Your task to perform on an android device: Search for "logitech g933" on ebay.com, select the first entry, and add it to the cart. Image 0: 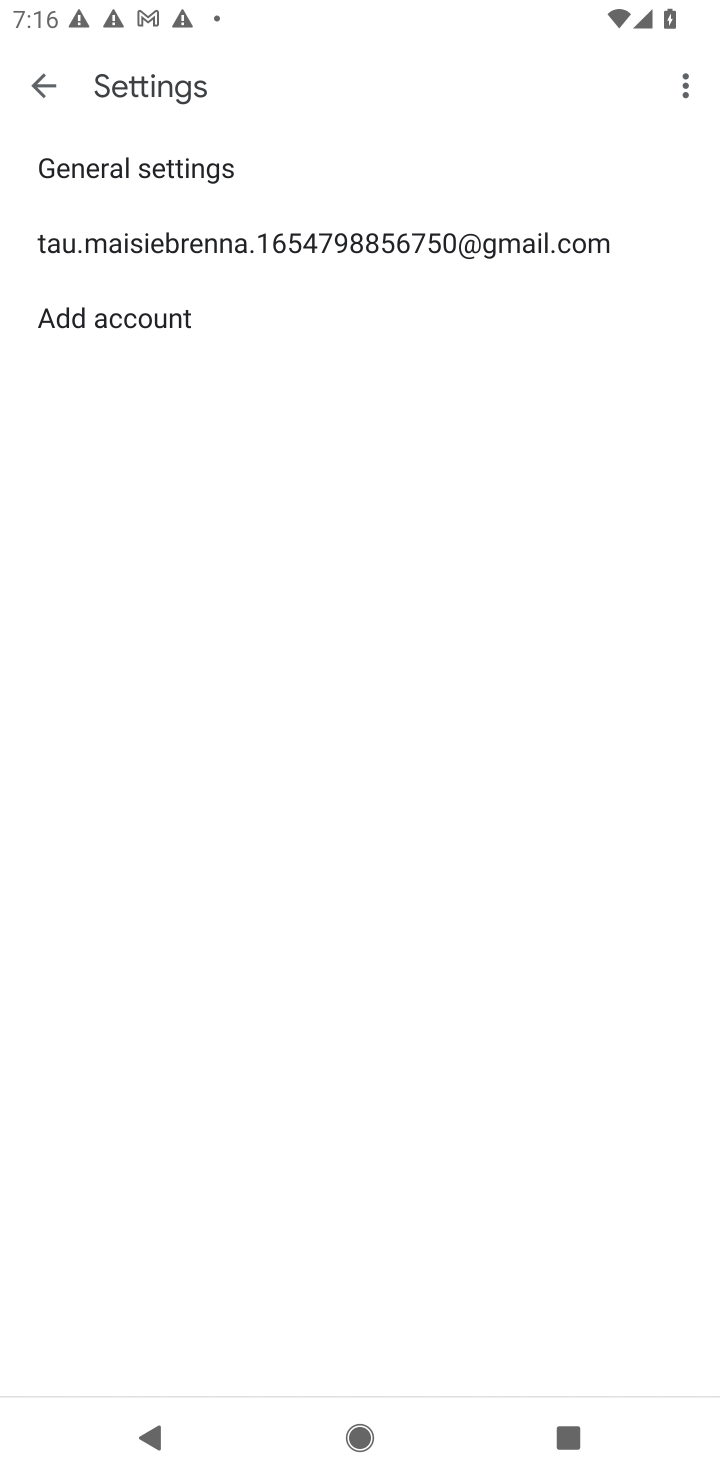
Step 0: press home button
Your task to perform on an android device: Search for "logitech g933" on ebay.com, select the first entry, and add it to the cart. Image 1: 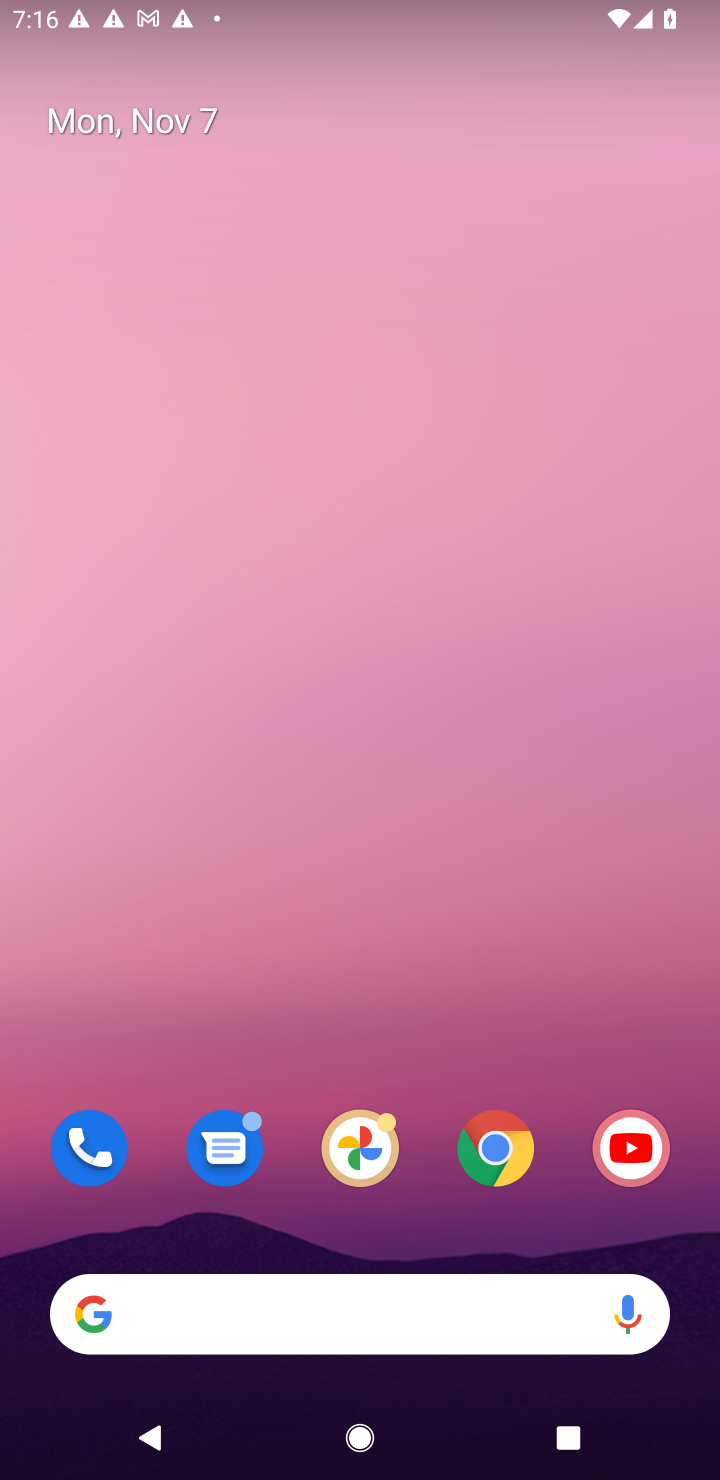
Step 1: click (478, 1140)
Your task to perform on an android device: Search for "logitech g933" on ebay.com, select the first entry, and add it to the cart. Image 2: 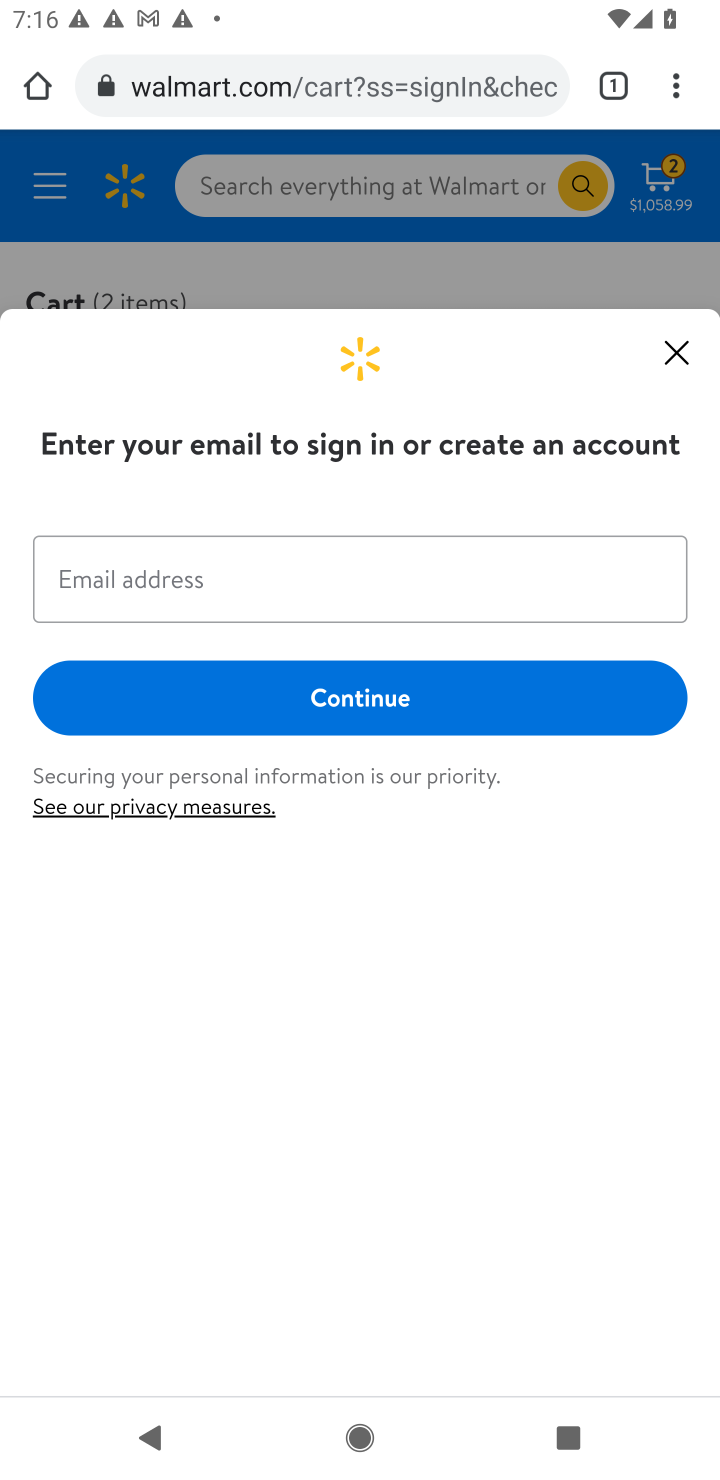
Step 2: click (356, 83)
Your task to perform on an android device: Search for "logitech g933" on ebay.com, select the first entry, and add it to the cart. Image 3: 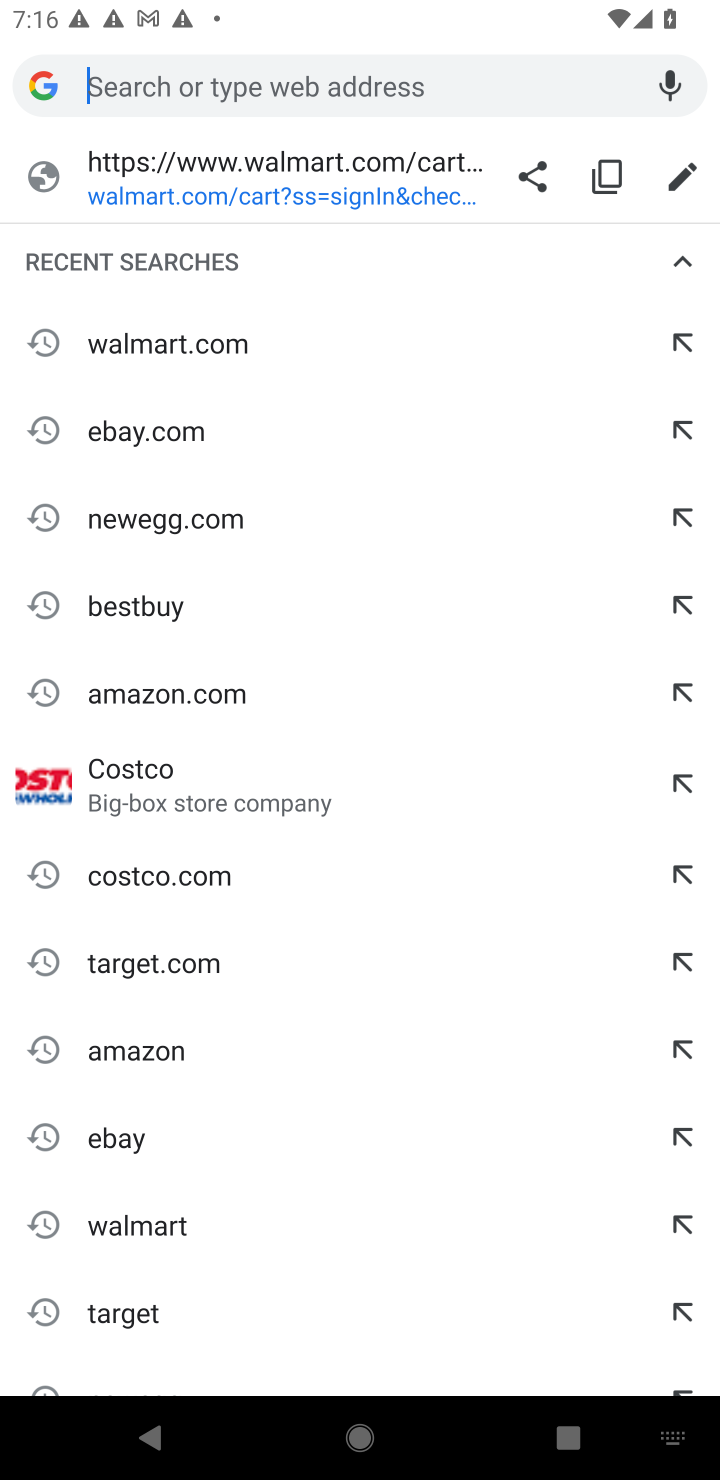
Step 3: type "ebay.com"
Your task to perform on an android device: Search for "logitech g933" on ebay.com, select the first entry, and add it to the cart. Image 4: 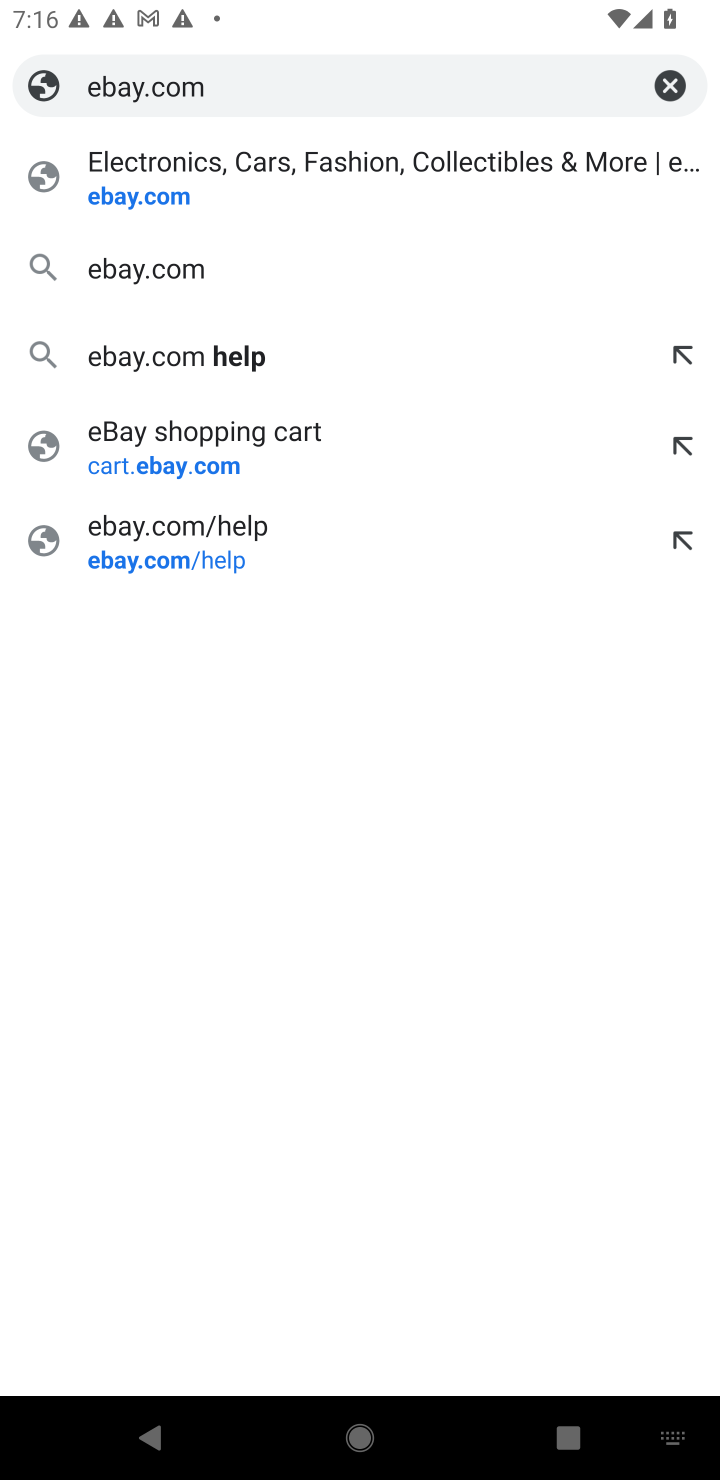
Step 4: click (165, 266)
Your task to perform on an android device: Search for "logitech g933" on ebay.com, select the first entry, and add it to the cart. Image 5: 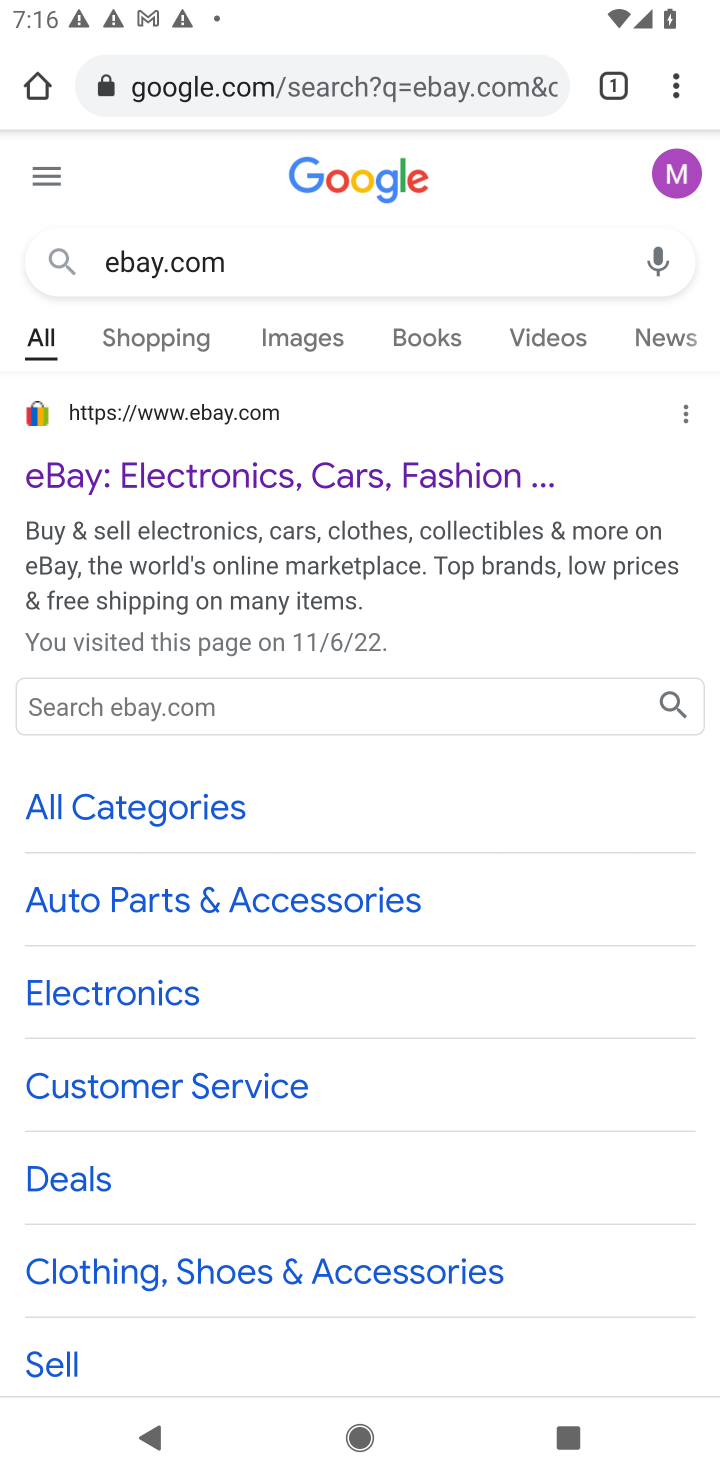
Step 5: click (245, 413)
Your task to perform on an android device: Search for "logitech g933" on ebay.com, select the first entry, and add it to the cart. Image 6: 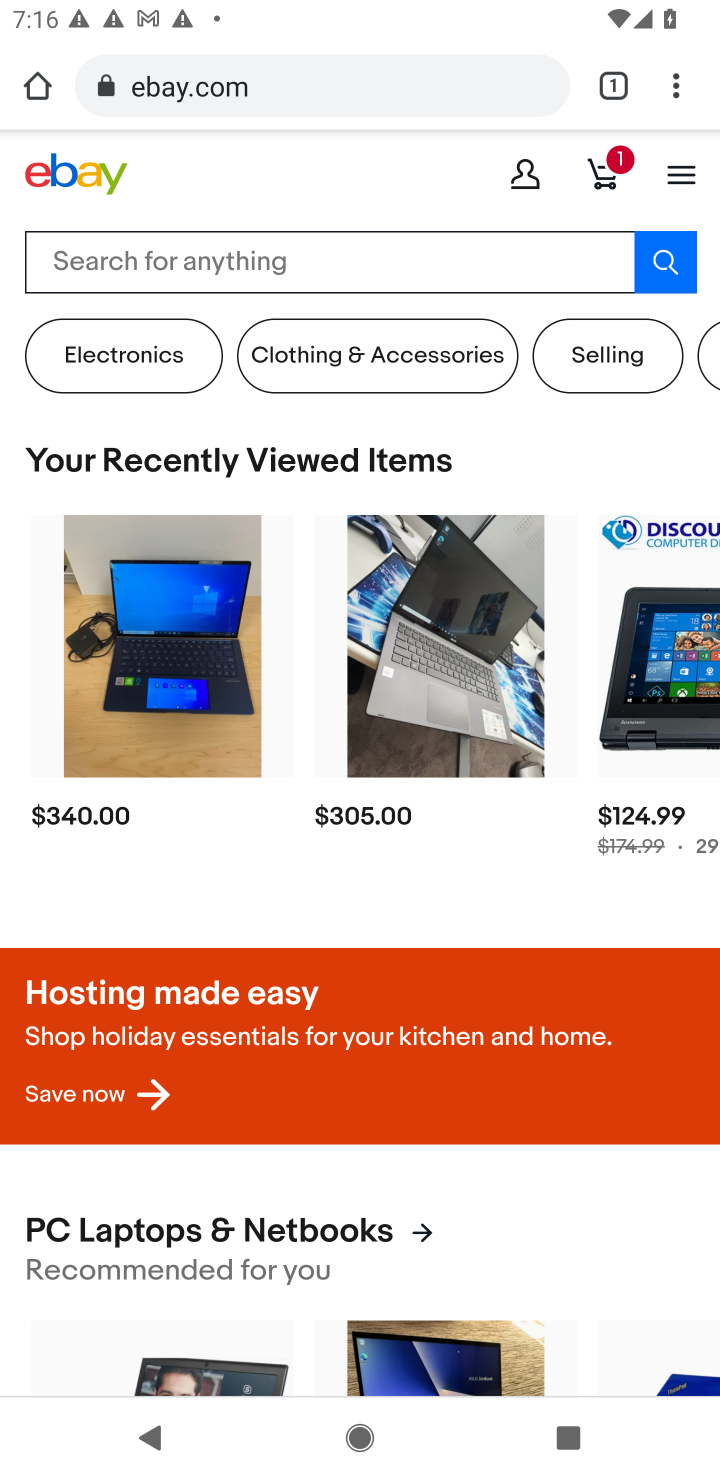
Step 6: click (438, 258)
Your task to perform on an android device: Search for "logitech g933" on ebay.com, select the first entry, and add it to the cart. Image 7: 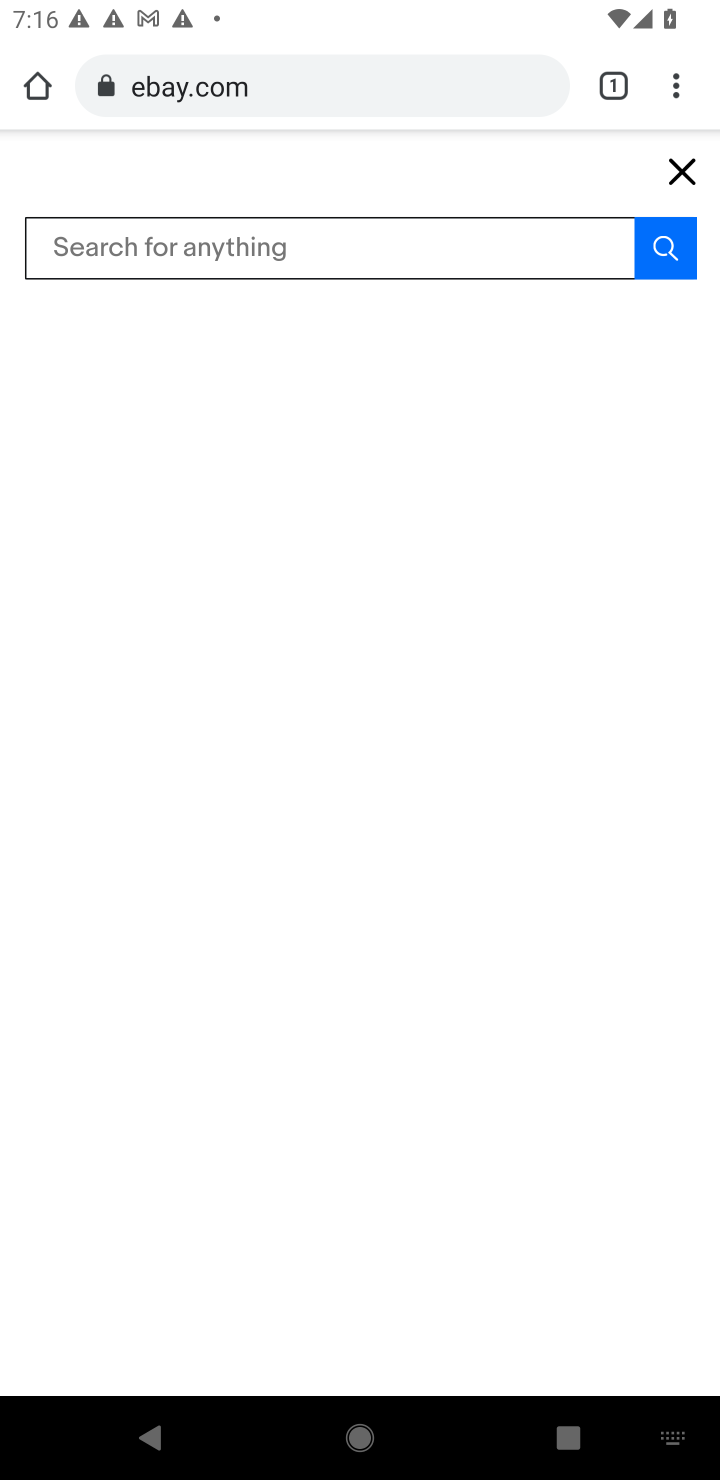
Step 7: type "logitech g933"
Your task to perform on an android device: Search for "logitech g933" on ebay.com, select the first entry, and add it to the cart. Image 8: 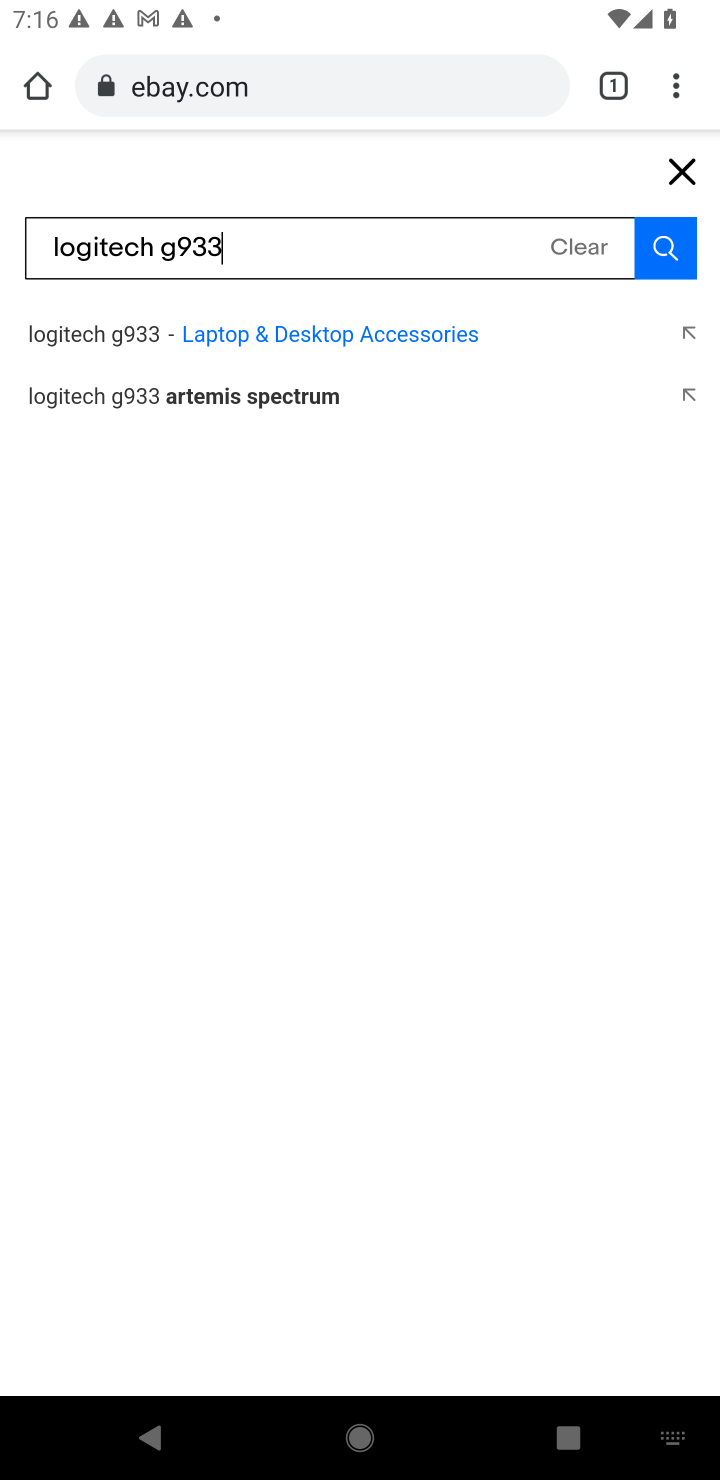
Step 8: click (135, 335)
Your task to perform on an android device: Search for "logitech g933" on ebay.com, select the first entry, and add it to the cart. Image 9: 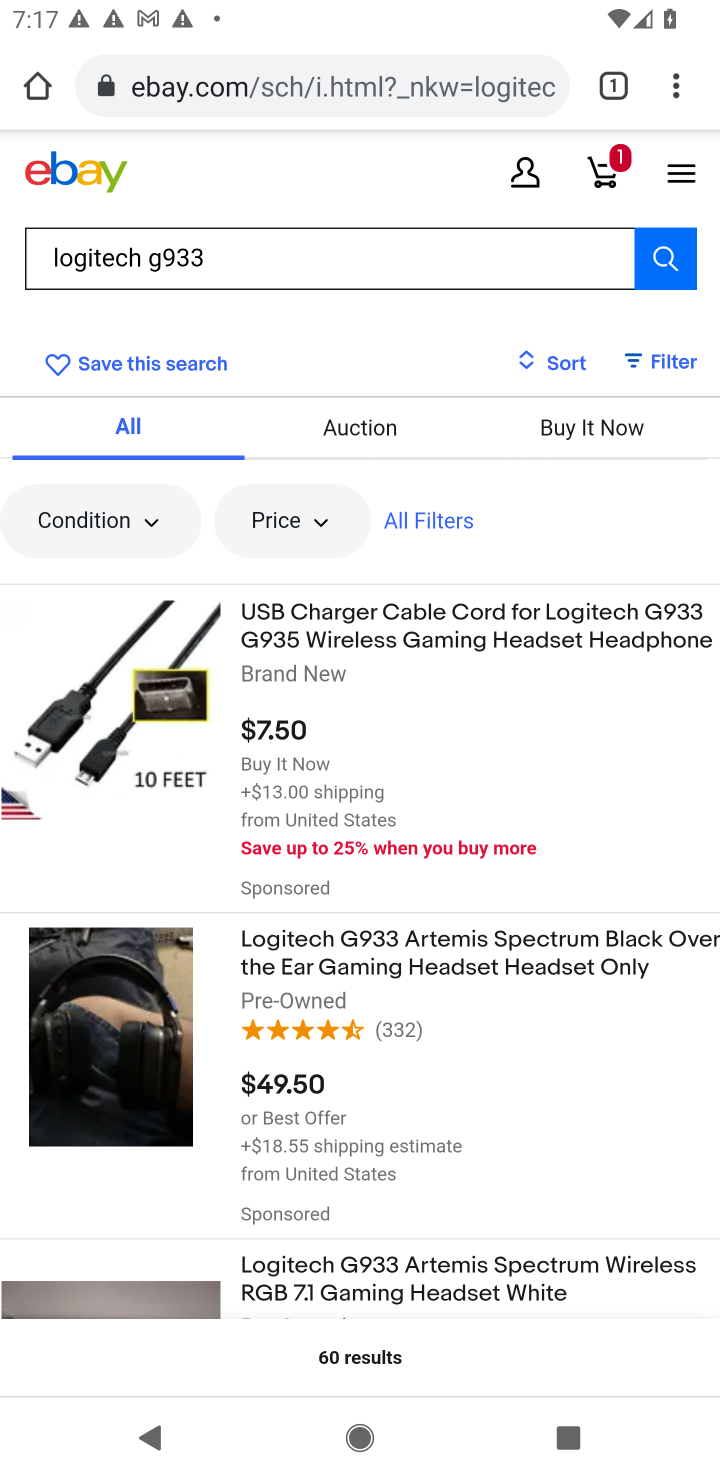
Step 9: click (153, 975)
Your task to perform on an android device: Search for "logitech g933" on ebay.com, select the first entry, and add it to the cart. Image 10: 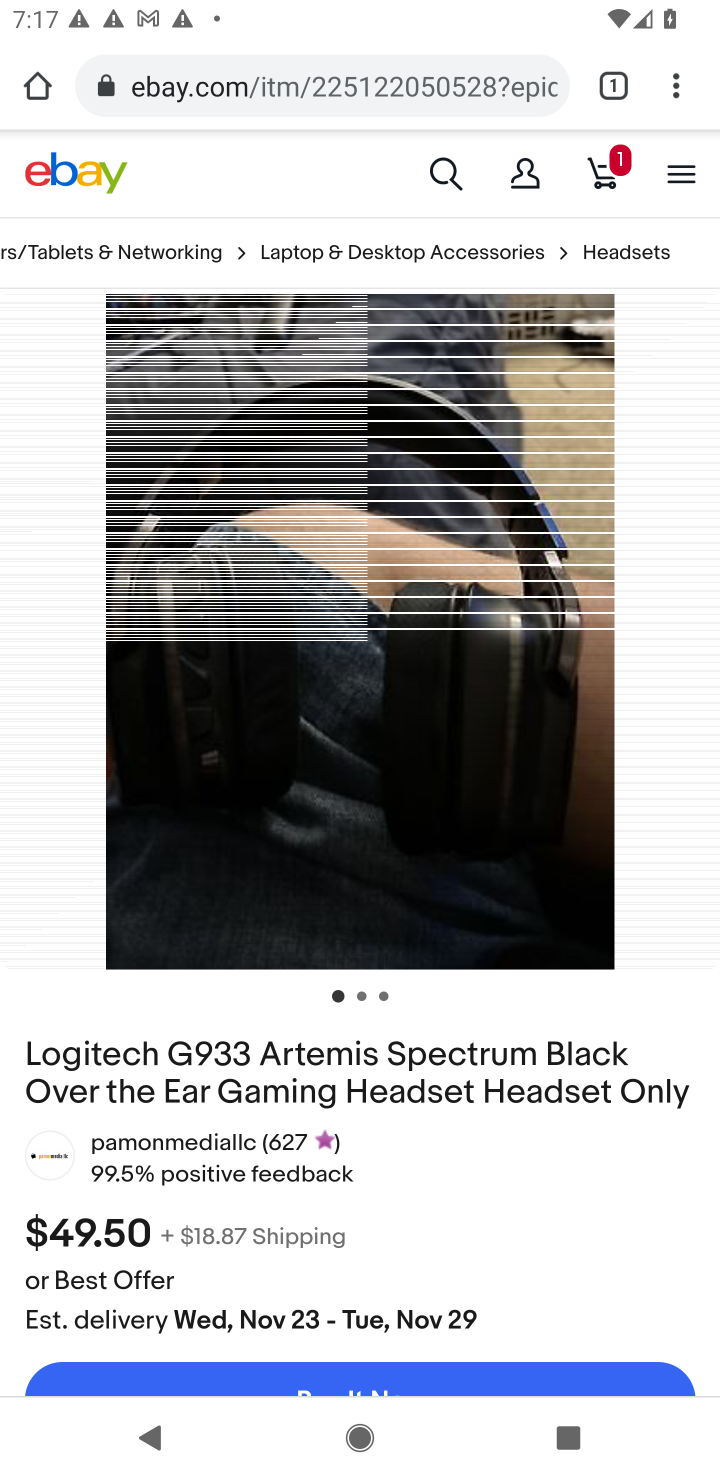
Step 10: press back button
Your task to perform on an android device: Search for "logitech g933" on ebay.com, select the first entry, and add it to the cart. Image 11: 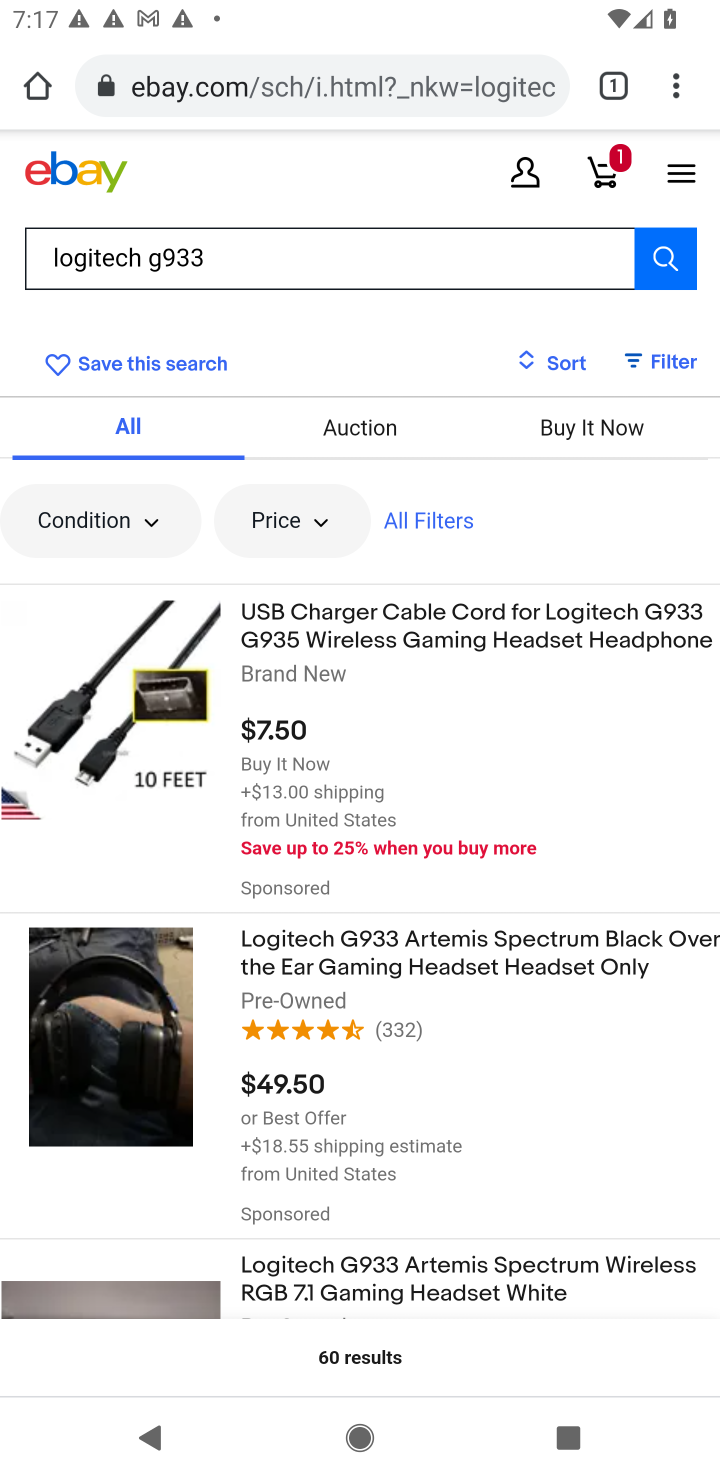
Step 11: drag from (153, 1096) to (213, 559)
Your task to perform on an android device: Search for "logitech g933" on ebay.com, select the first entry, and add it to the cart. Image 12: 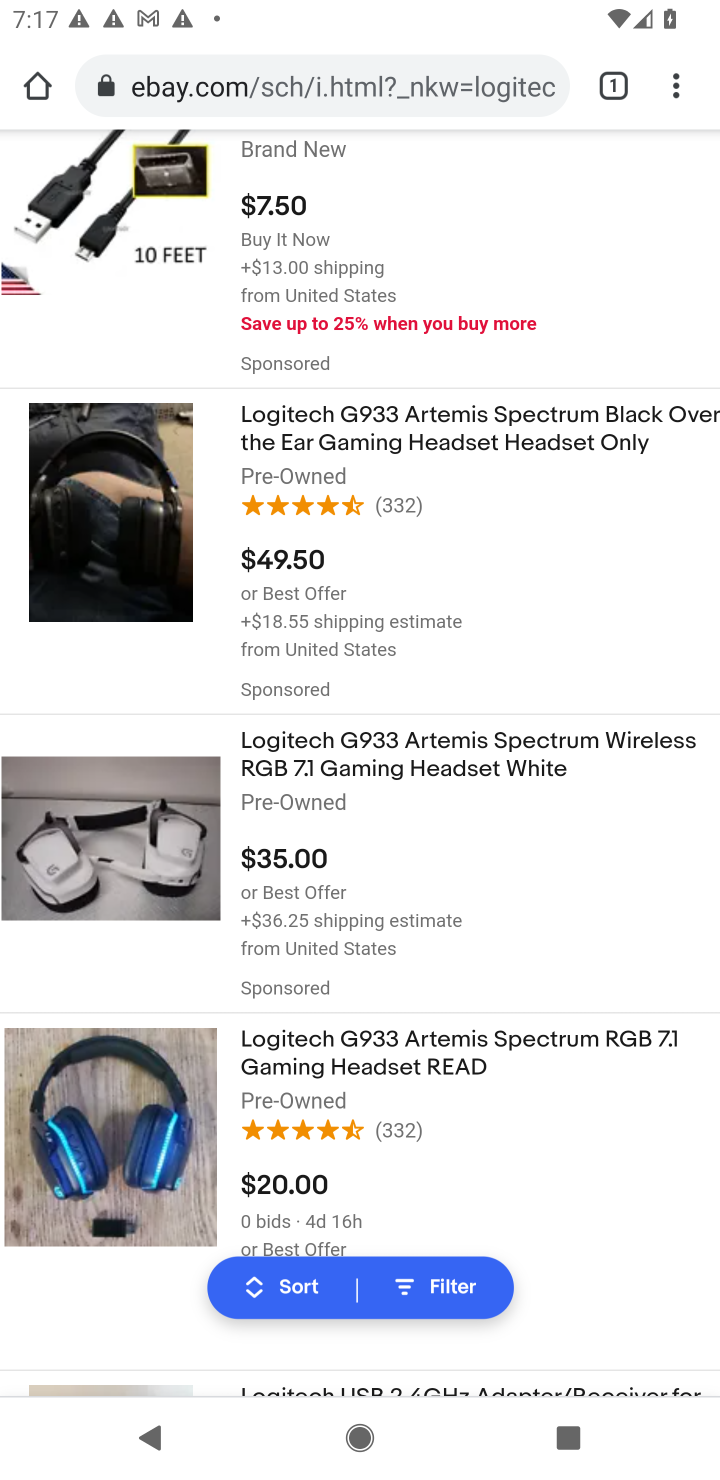
Step 12: click (162, 848)
Your task to perform on an android device: Search for "logitech g933" on ebay.com, select the first entry, and add it to the cart. Image 13: 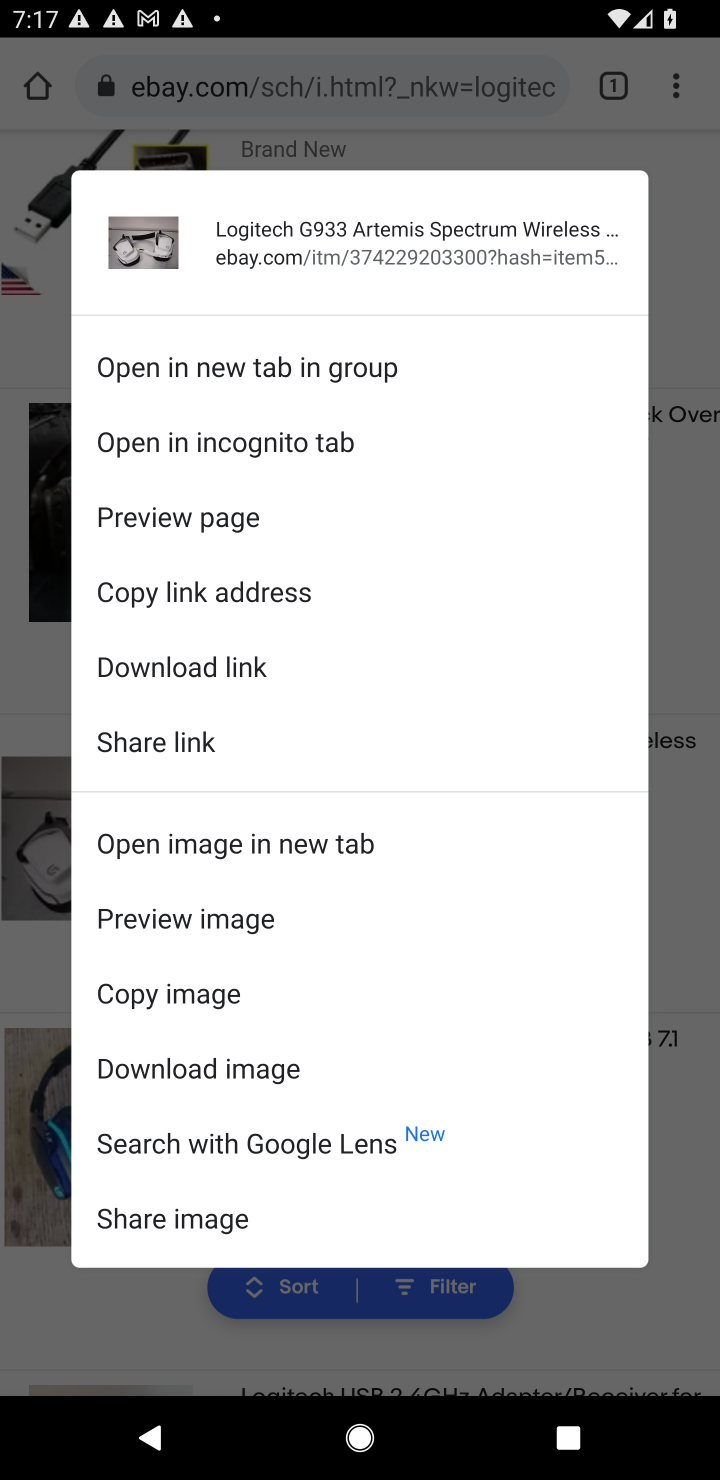
Step 13: click (706, 645)
Your task to perform on an android device: Search for "logitech g933" on ebay.com, select the first entry, and add it to the cart. Image 14: 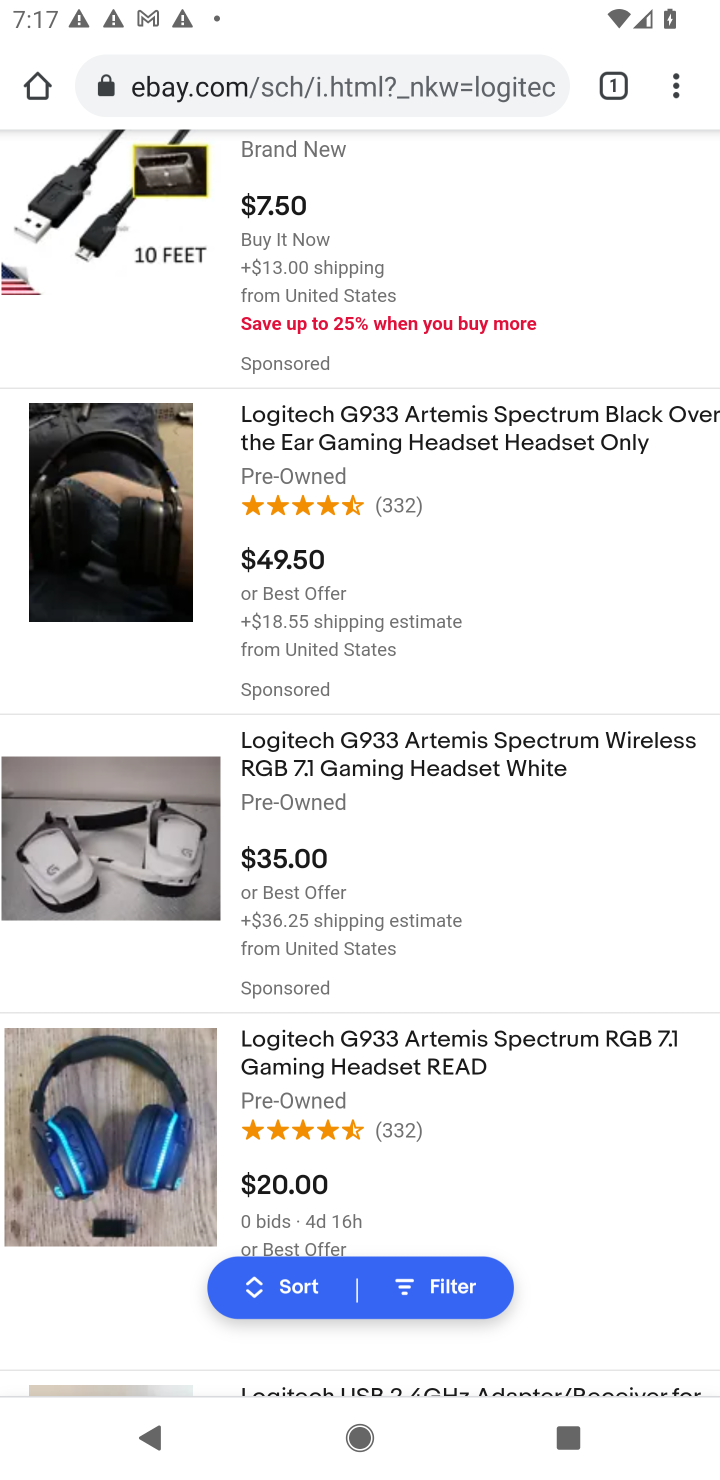
Step 14: click (85, 817)
Your task to perform on an android device: Search for "logitech g933" on ebay.com, select the first entry, and add it to the cart. Image 15: 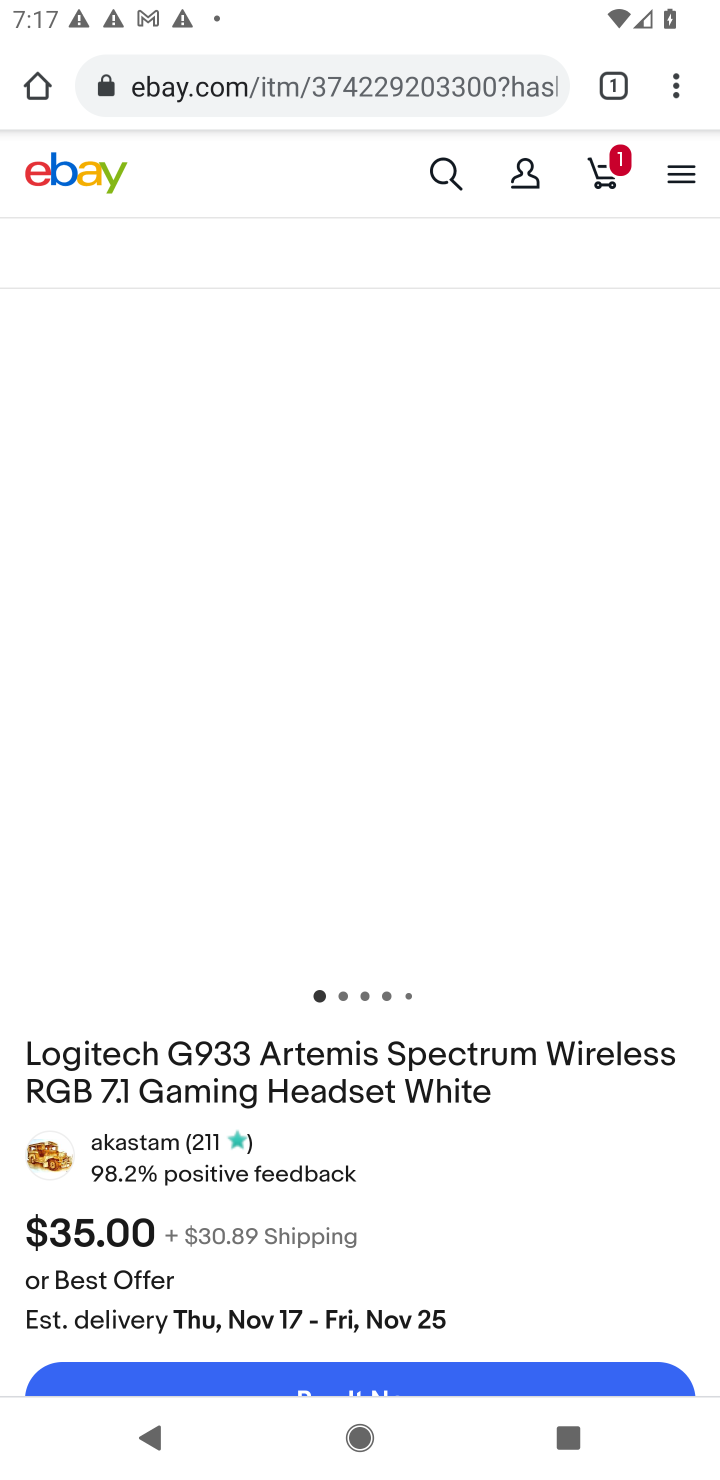
Step 15: press back button
Your task to perform on an android device: Search for "logitech g933" on ebay.com, select the first entry, and add it to the cart. Image 16: 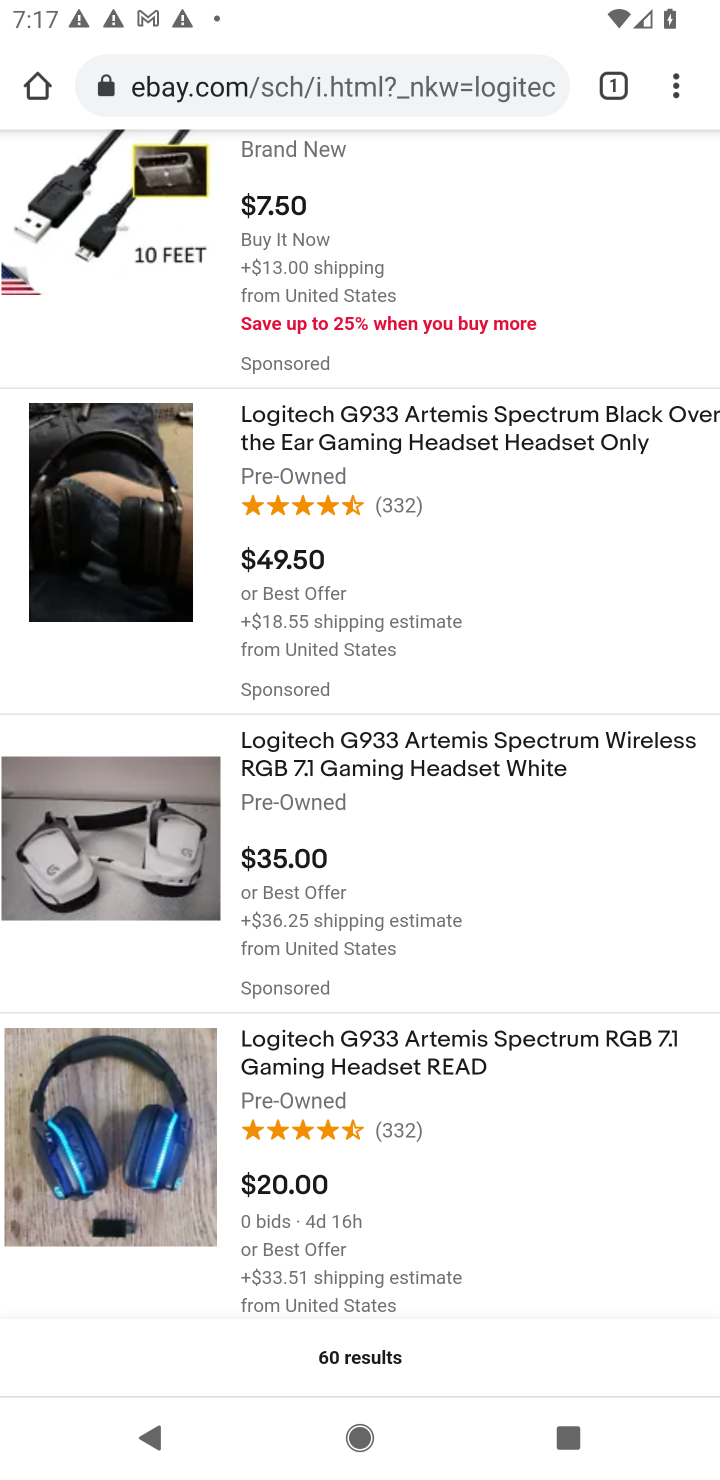
Step 16: click (140, 1070)
Your task to perform on an android device: Search for "logitech g933" on ebay.com, select the first entry, and add it to the cart. Image 17: 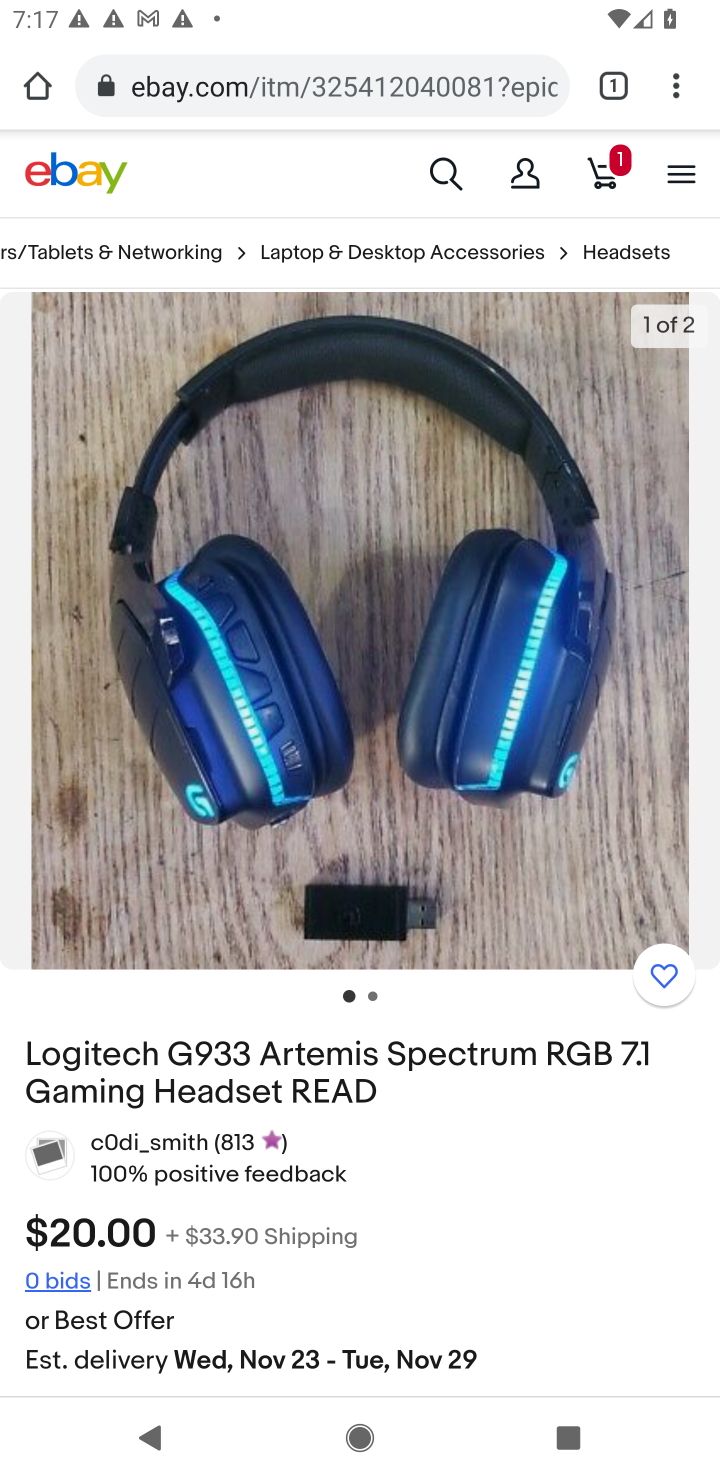
Step 17: drag from (519, 931) to (572, 286)
Your task to perform on an android device: Search for "logitech g933" on ebay.com, select the first entry, and add it to the cart. Image 18: 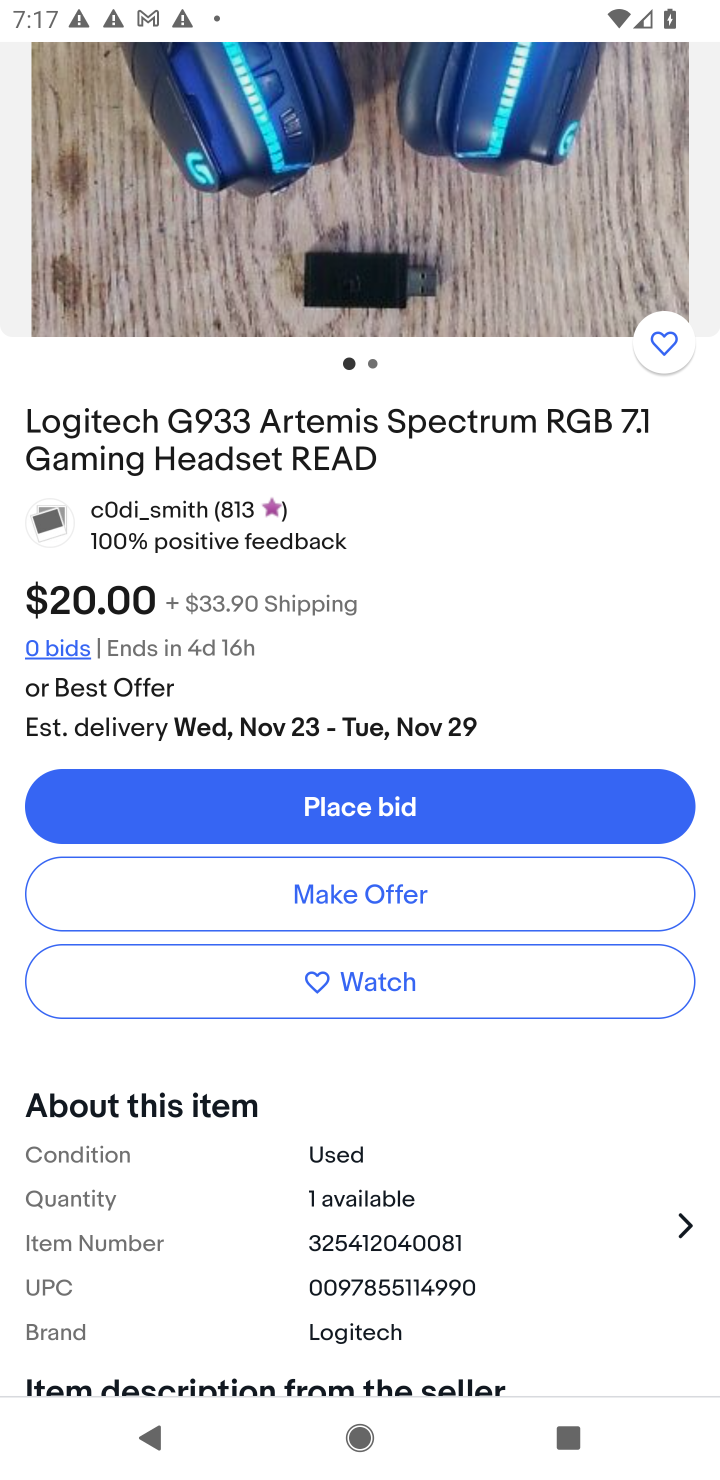
Step 18: press back button
Your task to perform on an android device: Search for "logitech g933" on ebay.com, select the first entry, and add it to the cart. Image 19: 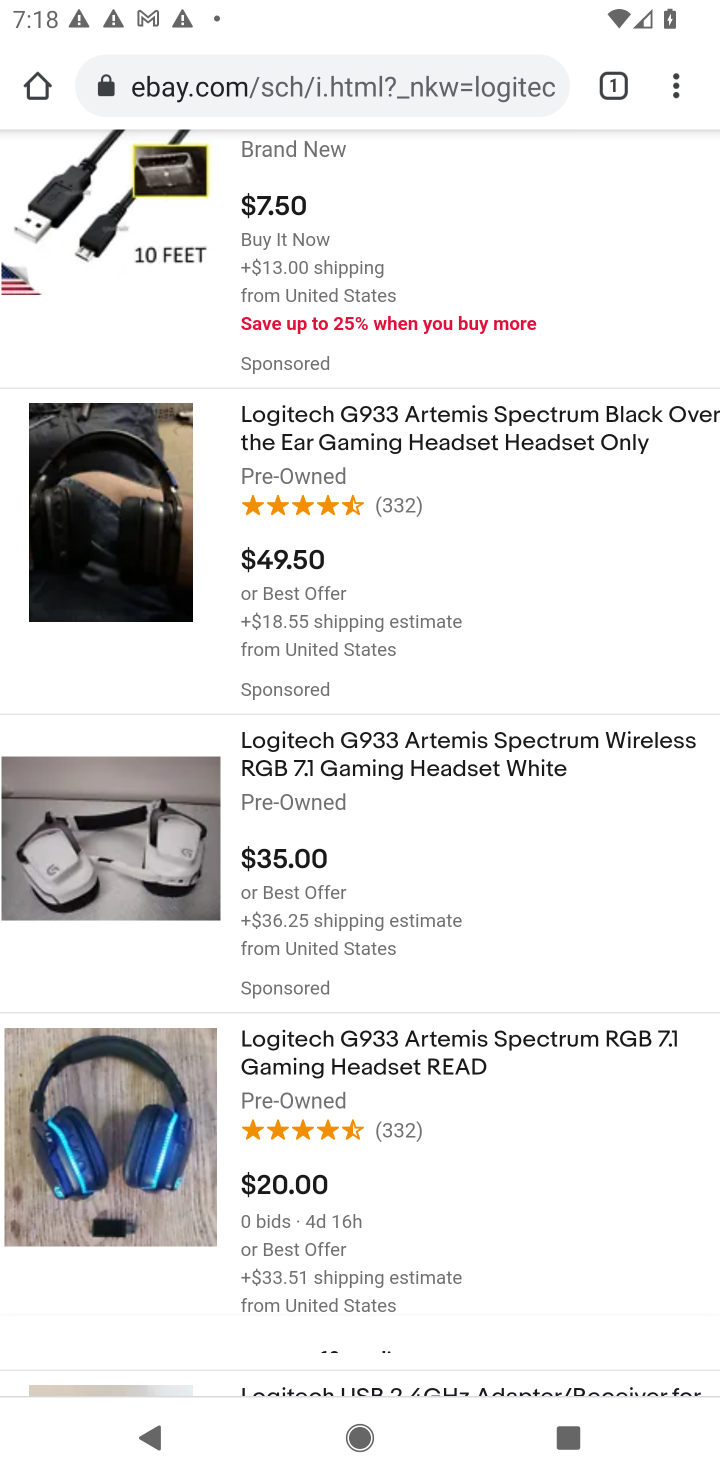
Step 19: click (70, 517)
Your task to perform on an android device: Search for "logitech g933" on ebay.com, select the first entry, and add it to the cart. Image 20: 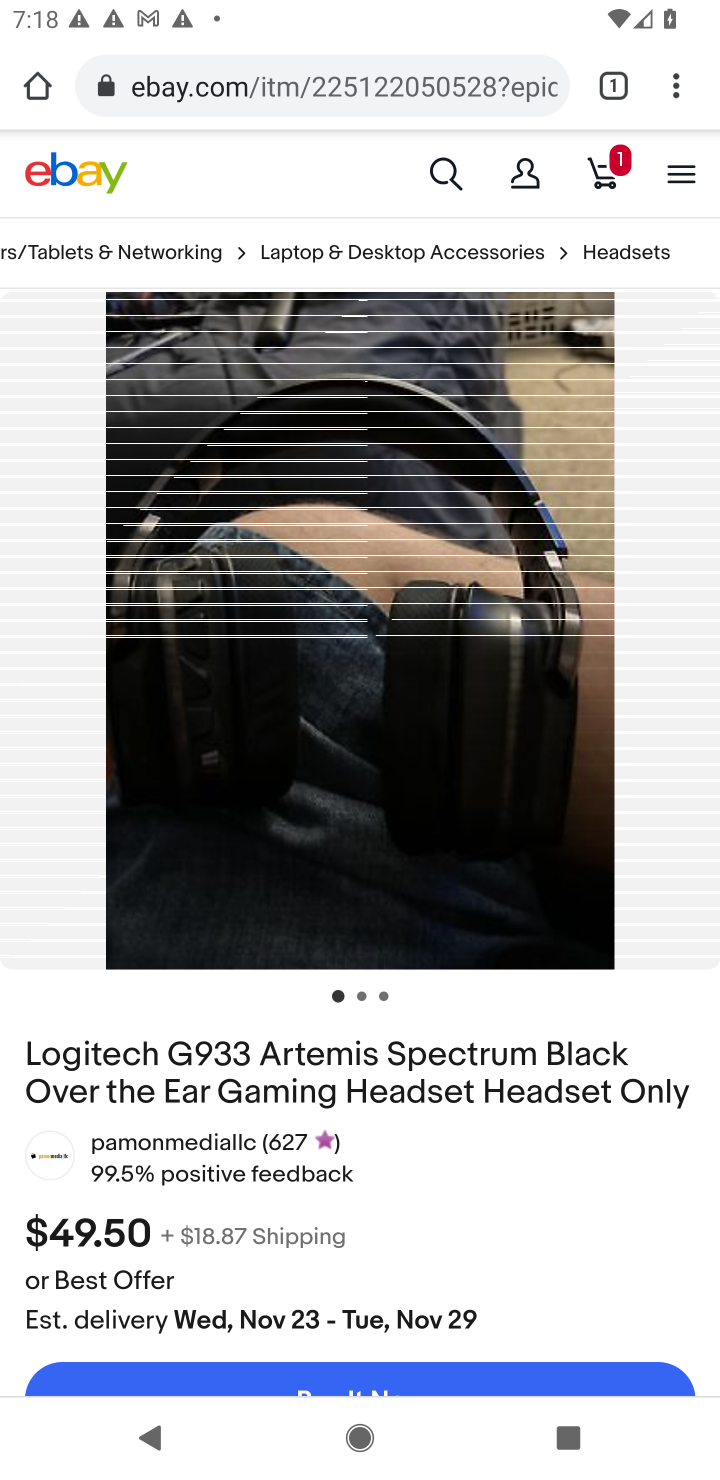
Step 20: drag from (569, 1073) to (587, 461)
Your task to perform on an android device: Search for "logitech g933" on ebay.com, select the first entry, and add it to the cart. Image 21: 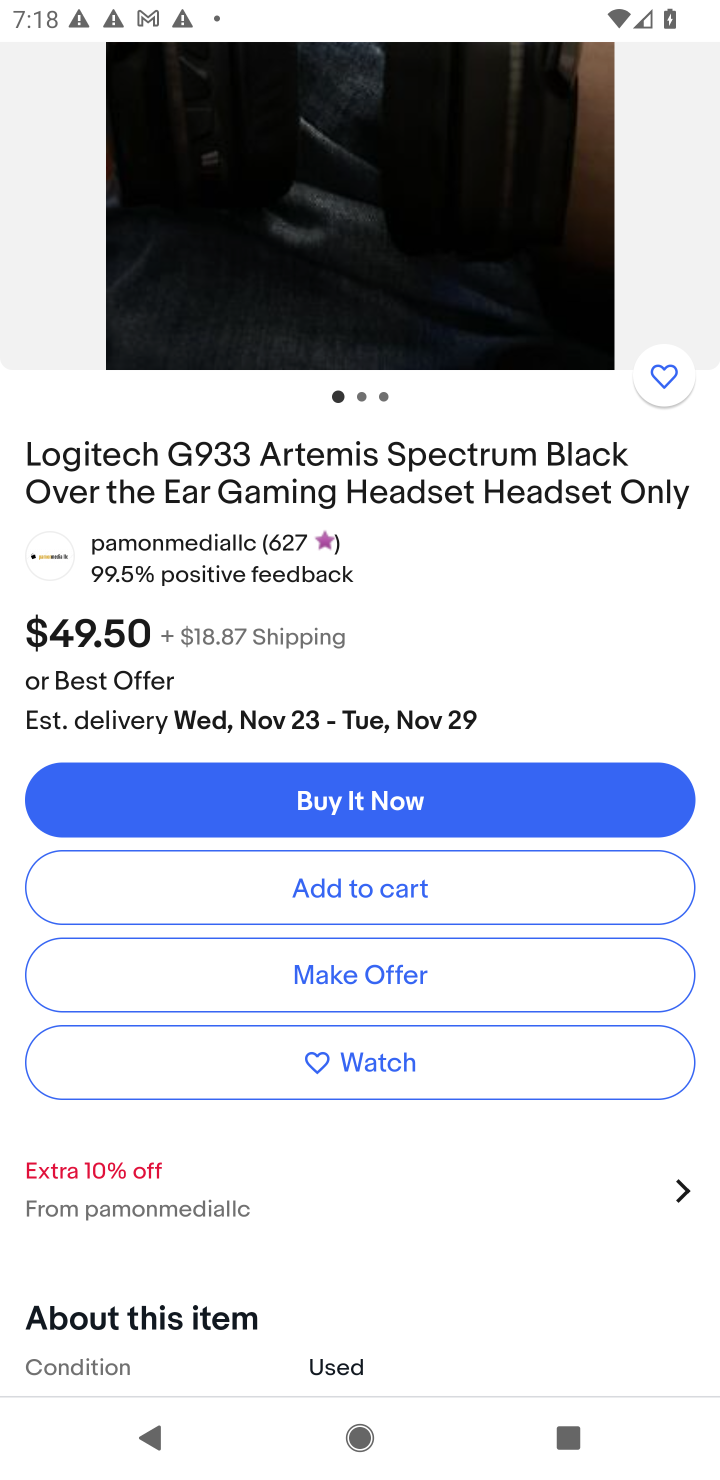
Step 21: click (379, 876)
Your task to perform on an android device: Search for "logitech g933" on ebay.com, select the first entry, and add it to the cart. Image 22: 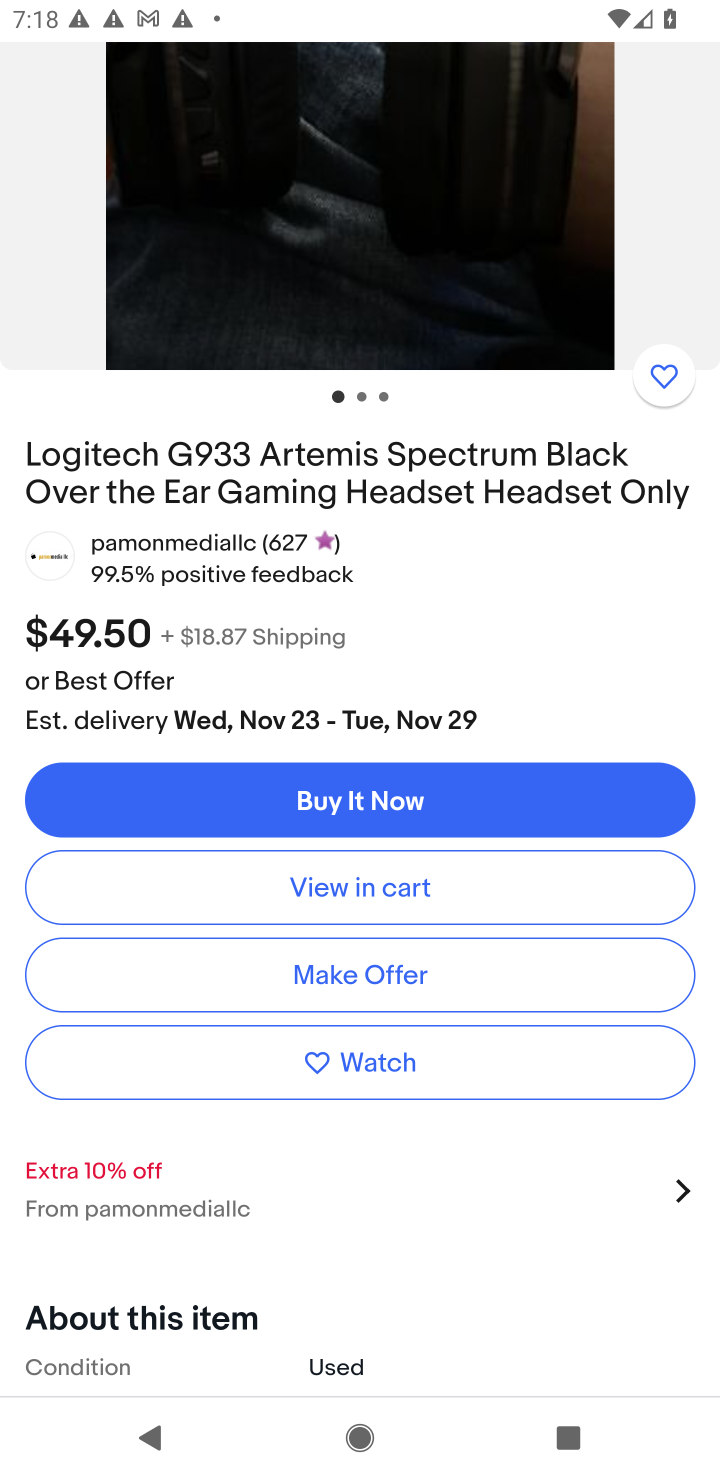
Step 22: task complete